Your task to perform on an android device: Open Google Image 0: 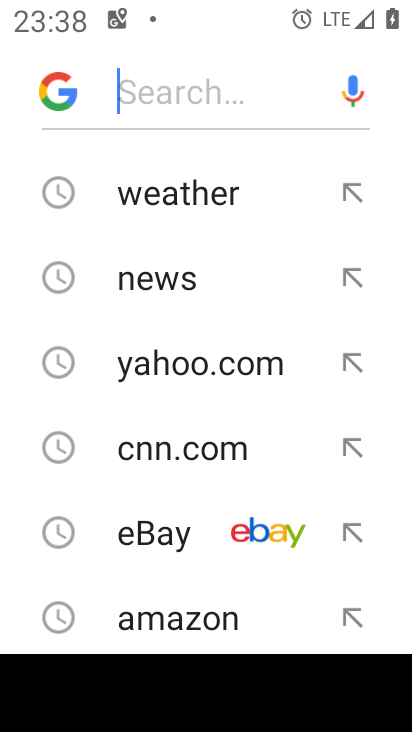
Step 0: task complete